Your task to perform on an android device: Do I have any events tomorrow? Image 0: 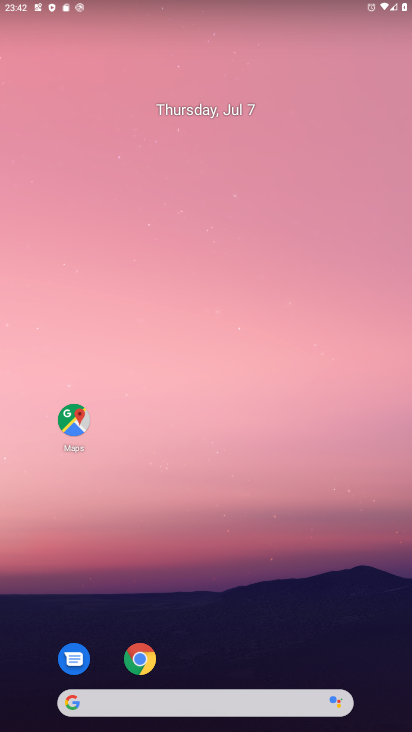
Step 0: click (209, 116)
Your task to perform on an android device: Do I have any events tomorrow? Image 1: 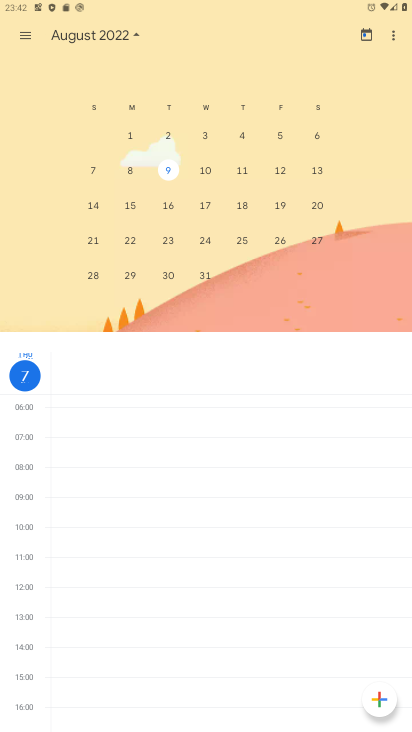
Step 1: click (103, 29)
Your task to perform on an android device: Do I have any events tomorrow? Image 2: 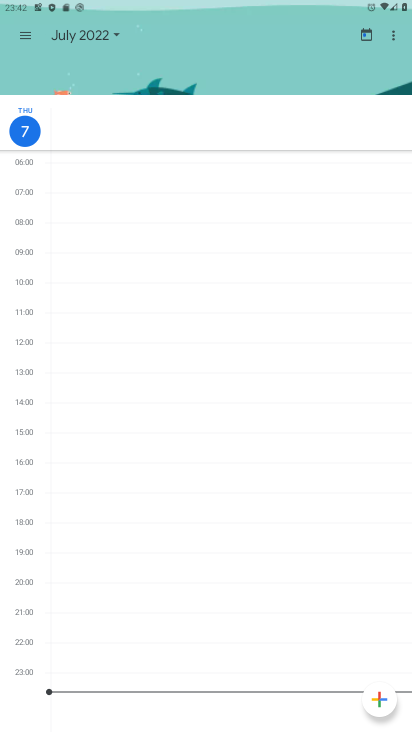
Step 2: click (103, 29)
Your task to perform on an android device: Do I have any events tomorrow? Image 3: 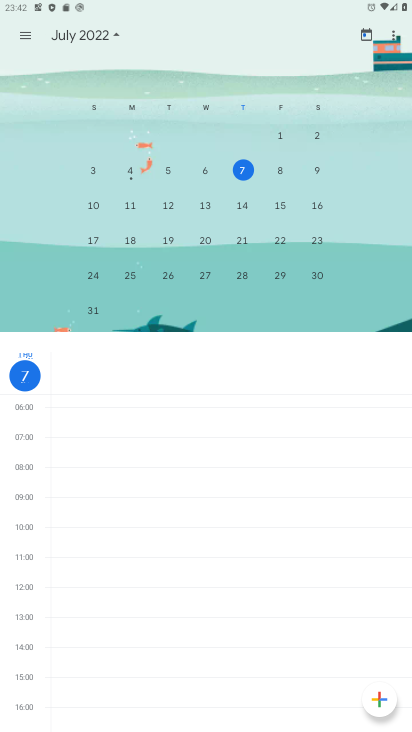
Step 3: click (284, 172)
Your task to perform on an android device: Do I have any events tomorrow? Image 4: 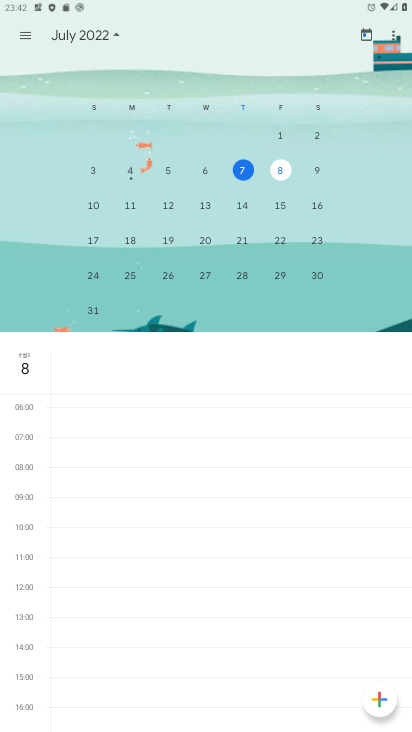
Step 4: task complete